Your task to perform on an android device: Turn off the flashlight Image 0: 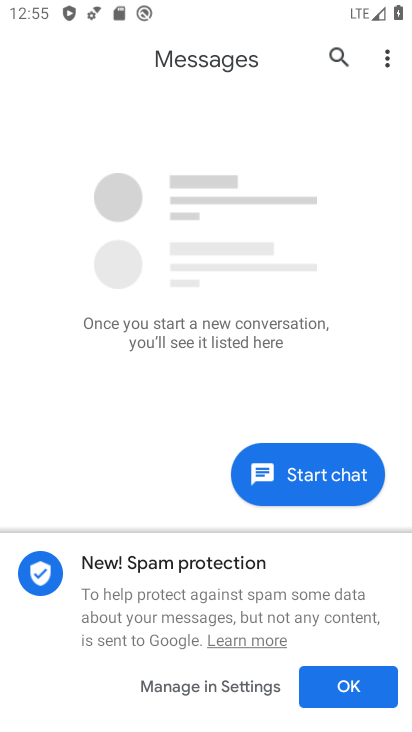
Step 0: press home button
Your task to perform on an android device: Turn off the flashlight Image 1: 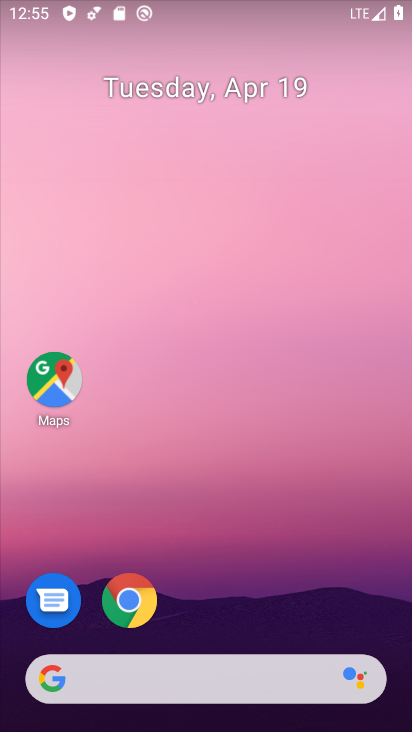
Step 1: drag from (220, 638) to (213, 7)
Your task to perform on an android device: Turn off the flashlight Image 2: 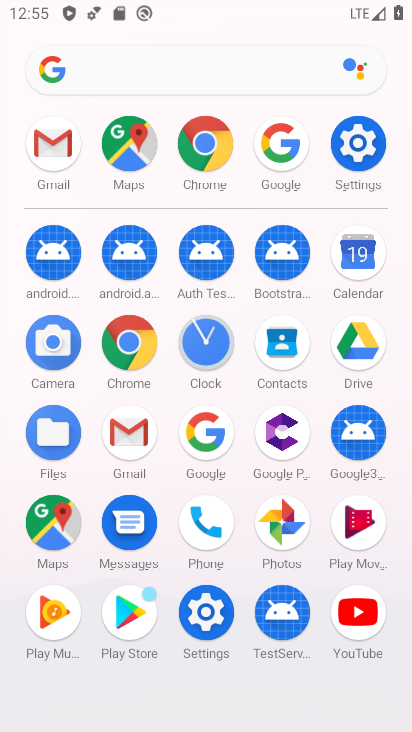
Step 2: click (355, 149)
Your task to perform on an android device: Turn off the flashlight Image 3: 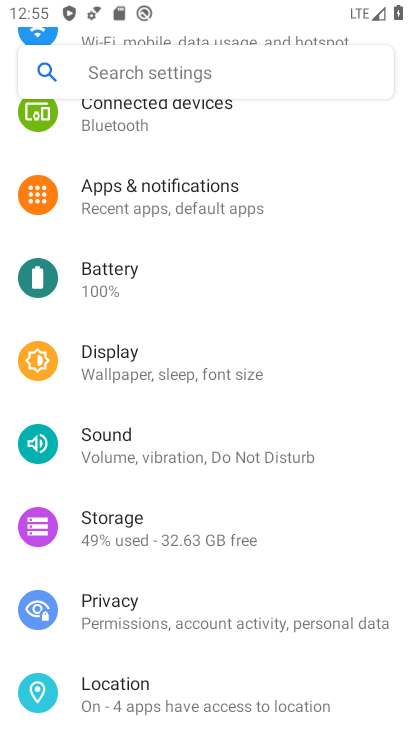
Step 3: click (161, 70)
Your task to perform on an android device: Turn off the flashlight Image 4: 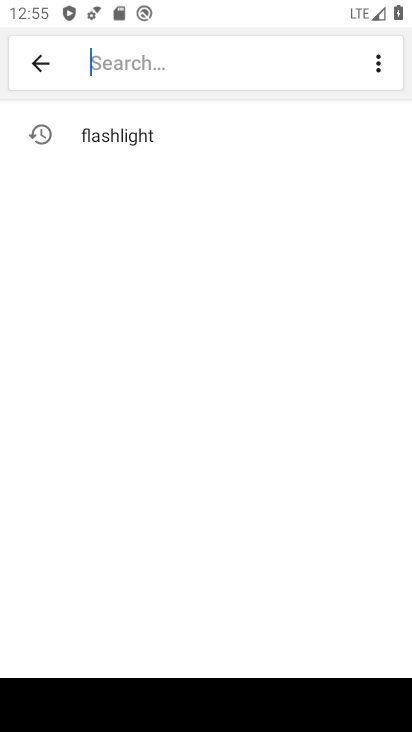
Step 4: type "fl"
Your task to perform on an android device: Turn off the flashlight Image 5: 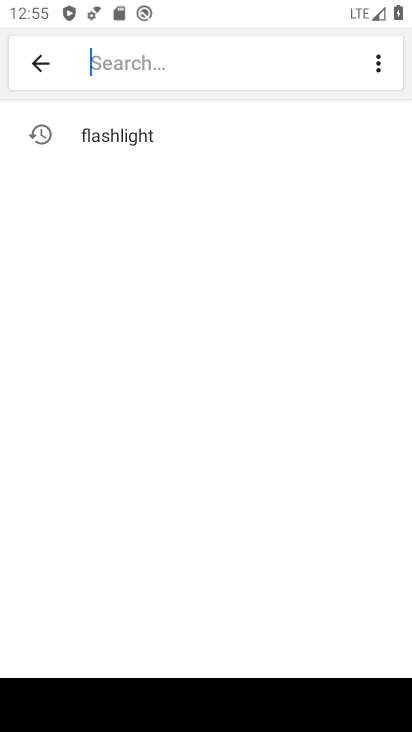
Step 5: click (216, 126)
Your task to perform on an android device: Turn off the flashlight Image 6: 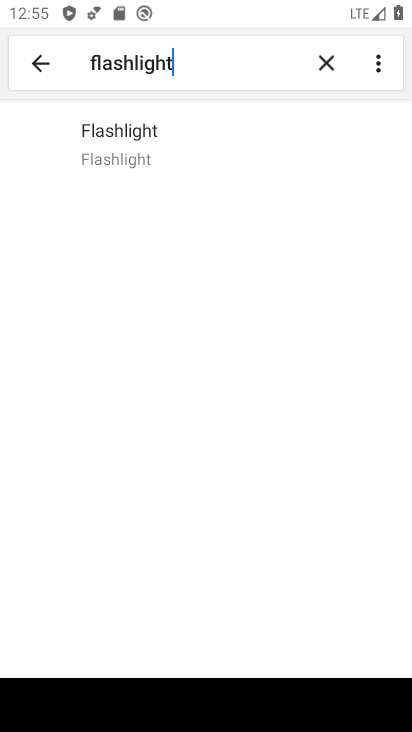
Step 6: task complete